Your task to perform on an android device: turn smart compose on in the gmail app Image 0: 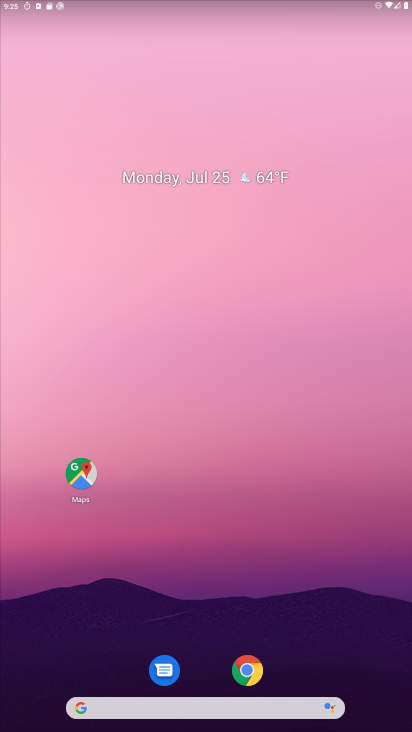
Step 0: drag from (349, 649) to (163, 70)
Your task to perform on an android device: turn smart compose on in the gmail app Image 1: 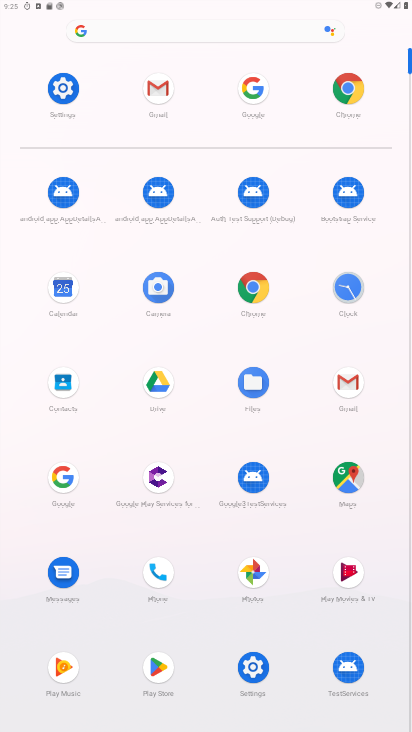
Step 1: click (157, 94)
Your task to perform on an android device: turn smart compose on in the gmail app Image 2: 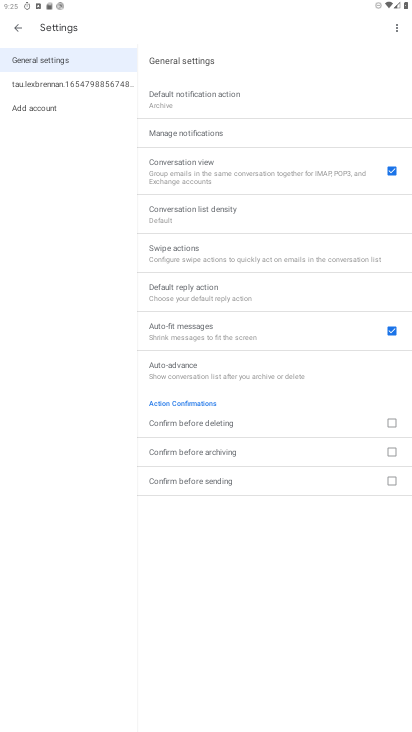
Step 2: click (73, 73)
Your task to perform on an android device: turn smart compose on in the gmail app Image 3: 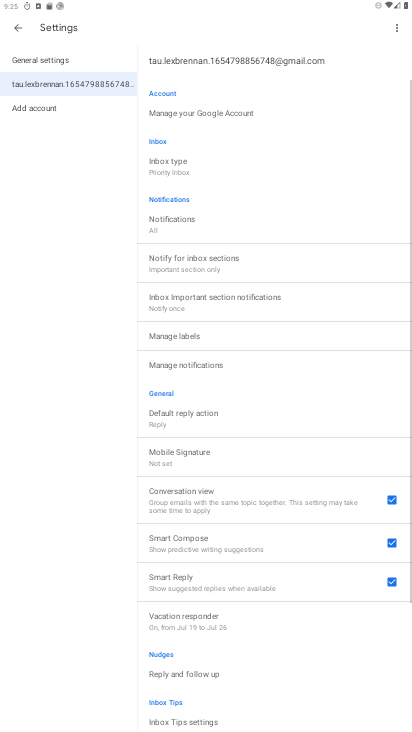
Step 3: task complete